Your task to perform on an android device: Open internet settings Image 0: 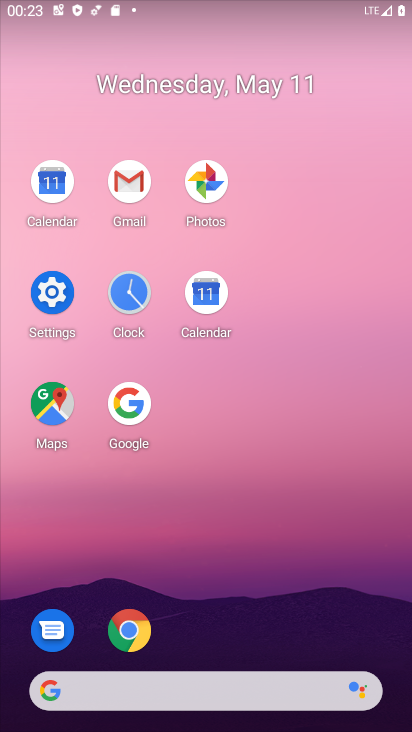
Step 0: click (49, 287)
Your task to perform on an android device: Open internet settings Image 1: 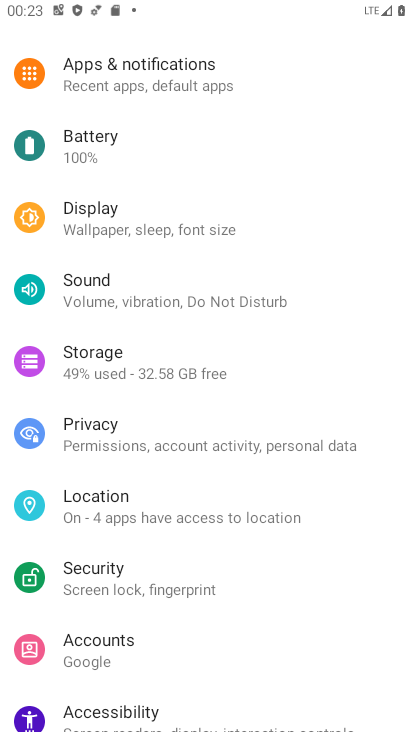
Step 1: drag from (279, 108) to (327, 574)
Your task to perform on an android device: Open internet settings Image 2: 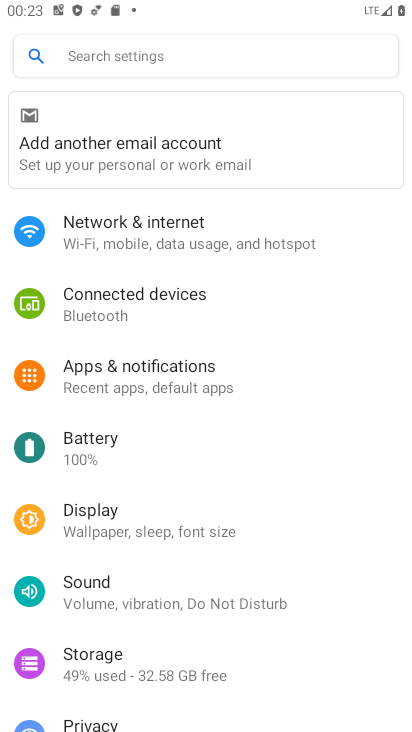
Step 2: click (216, 214)
Your task to perform on an android device: Open internet settings Image 3: 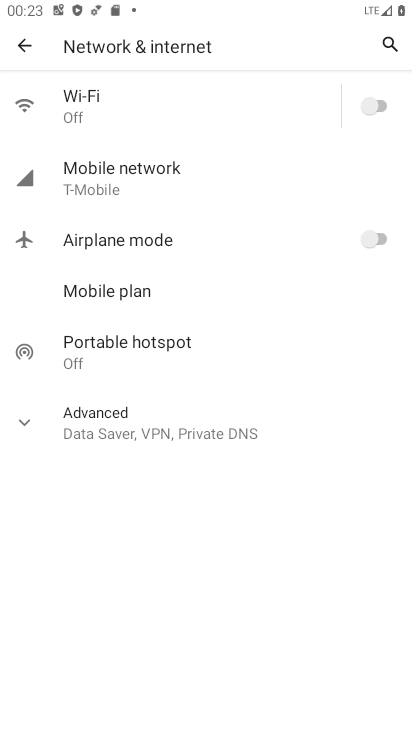
Step 3: click (184, 176)
Your task to perform on an android device: Open internet settings Image 4: 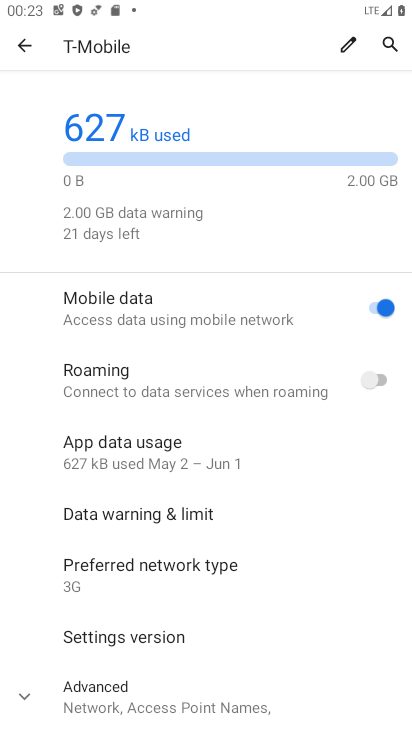
Step 4: task complete